Your task to perform on an android device: remove spam from my inbox in the gmail app Image 0: 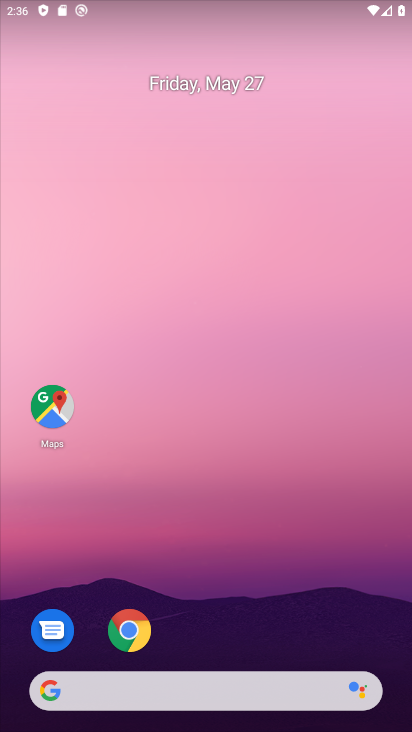
Step 0: drag from (214, 656) to (221, 136)
Your task to perform on an android device: remove spam from my inbox in the gmail app Image 1: 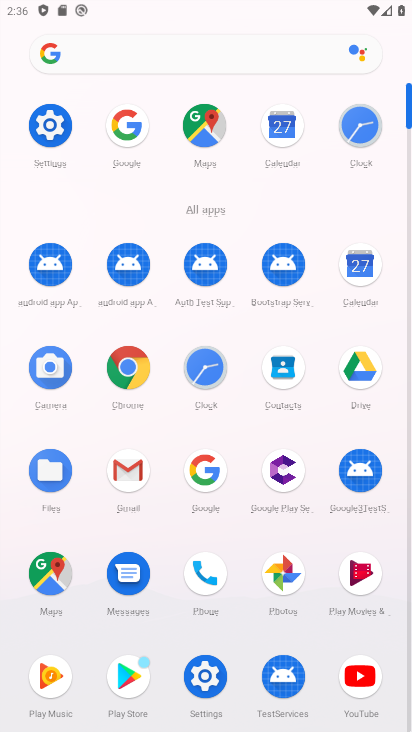
Step 1: click (119, 475)
Your task to perform on an android device: remove spam from my inbox in the gmail app Image 2: 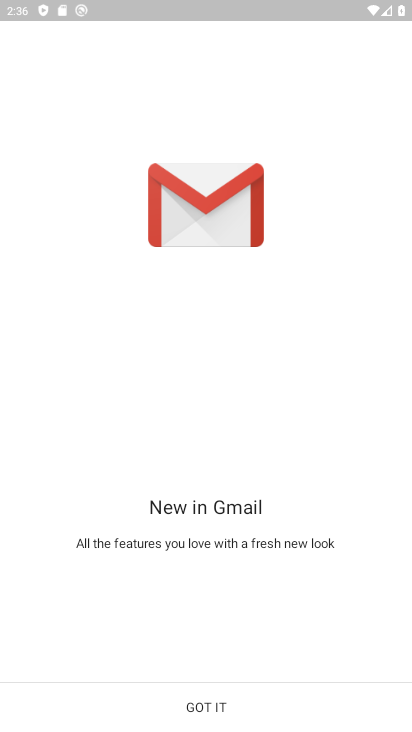
Step 2: click (154, 671)
Your task to perform on an android device: remove spam from my inbox in the gmail app Image 3: 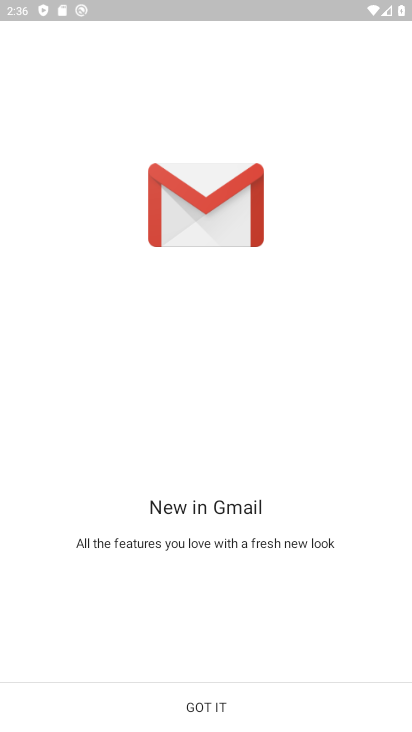
Step 3: click (209, 685)
Your task to perform on an android device: remove spam from my inbox in the gmail app Image 4: 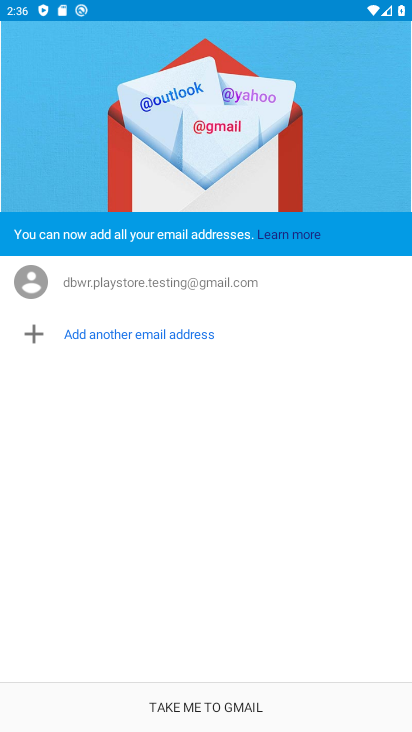
Step 4: click (230, 698)
Your task to perform on an android device: remove spam from my inbox in the gmail app Image 5: 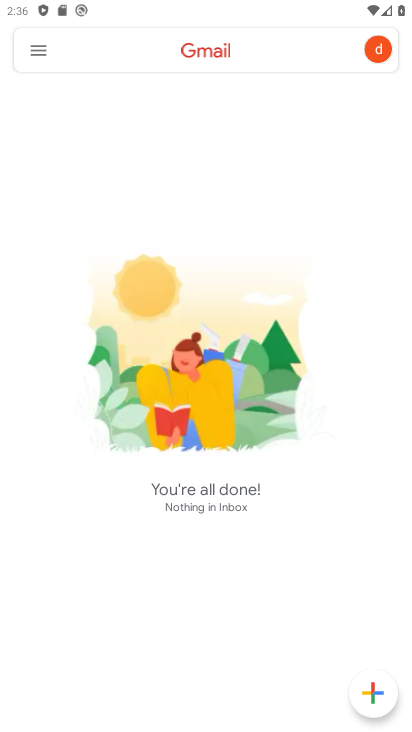
Step 5: click (39, 50)
Your task to perform on an android device: remove spam from my inbox in the gmail app Image 6: 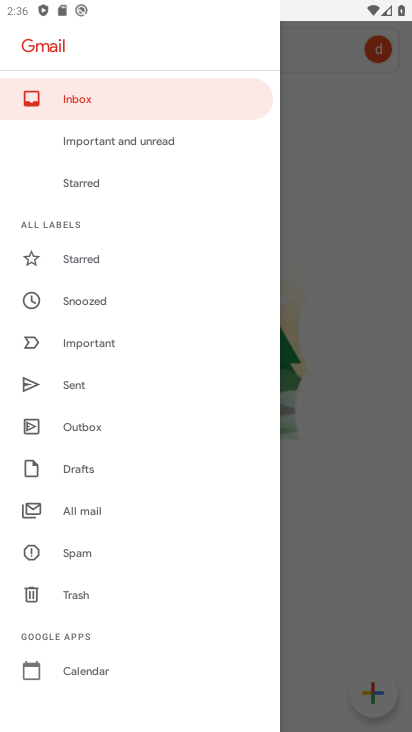
Step 6: click (87, 535)
Your task to perform on an android device: remove spam from my inbox in the gmail app Image 7: 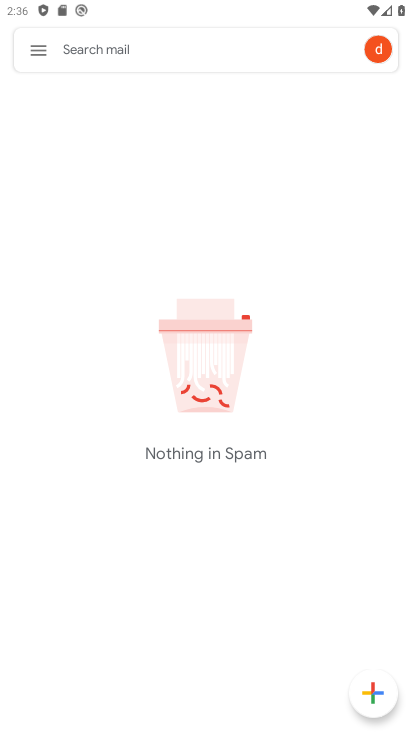
Step 7: task complete